Your task to perform on an android device: Go to Wikipedia Image 0: 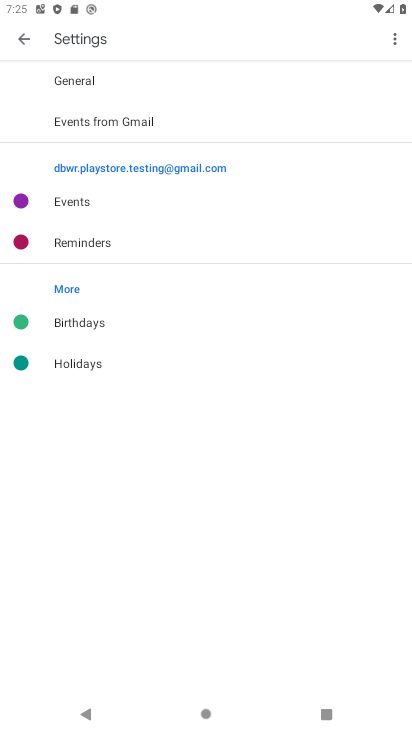
Step 0: press back button
Your task to perform on an android device: Go to Wikipedia Image 1: 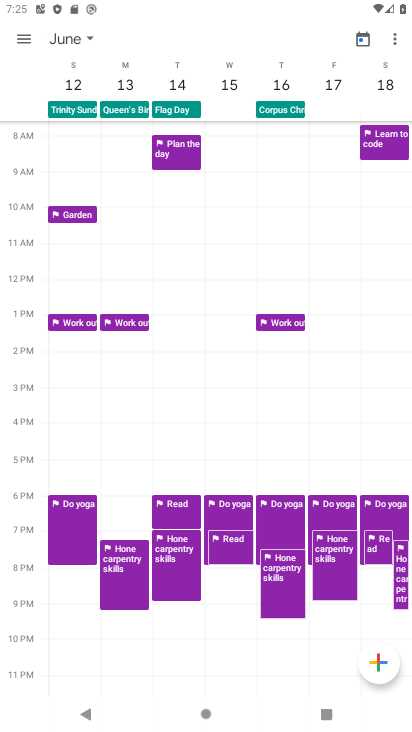
Step 1: press home button
Your task to perform on an android device: Go to Wikipedia Image 2: 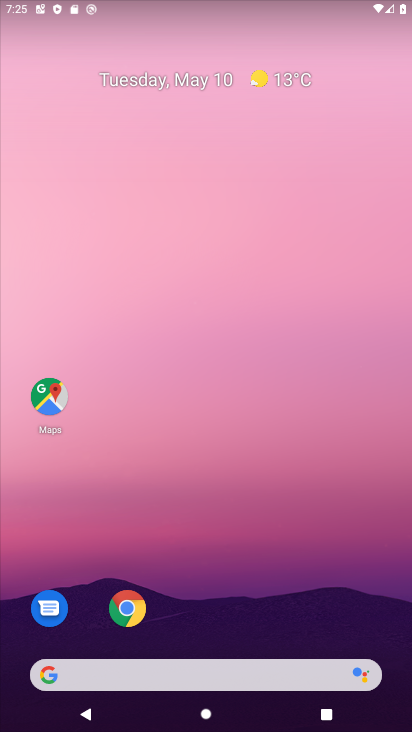
Step 2: click (119, 626)
Your task to perform on an android device: Go to Wikipedia Image 3: 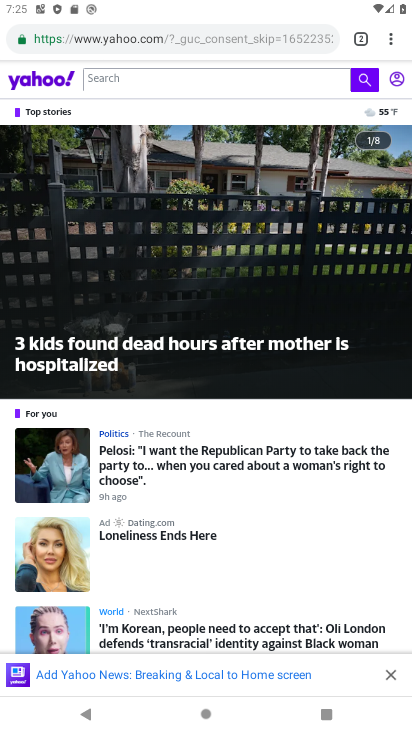
Step 3: click (361, 35)
Your task to perform on an android device: Go to Wikipedia Image 4: 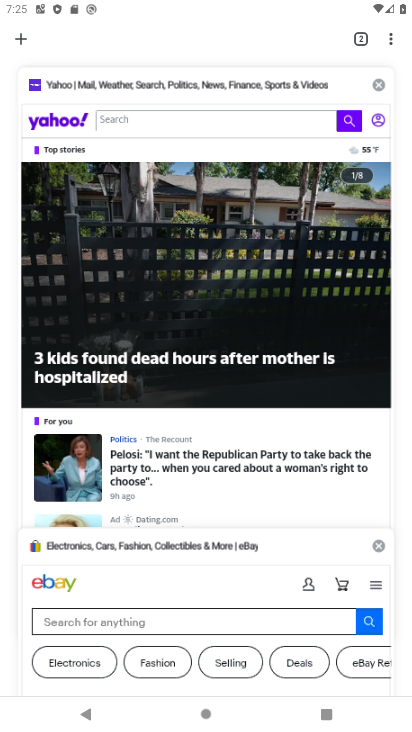
Step 4: click (377, 554)
Your task to perform on an android device: Go to Wikipedia Image 5: 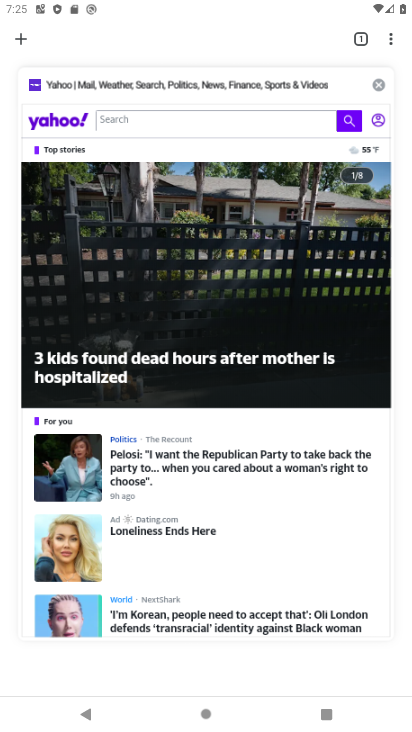
Step 5: click (379, 83)
Your task to perform on an android device: Go to Wikipedia Image 6: 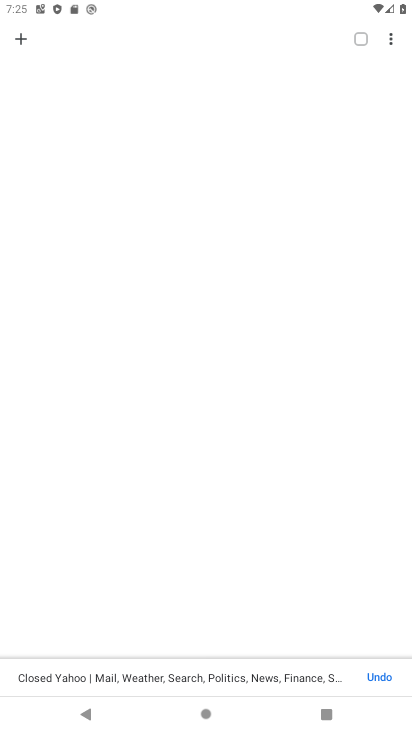
Step 6: click (19, 38)
Your task to perform on an android device: Go to Wikipedia Image 7: 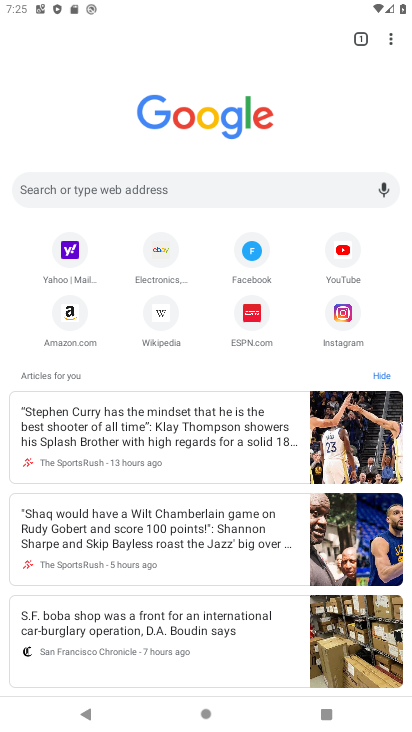
Step 7: click (155, 331)
Your task to perform on an android device: Go to Wikipedia Image 8: 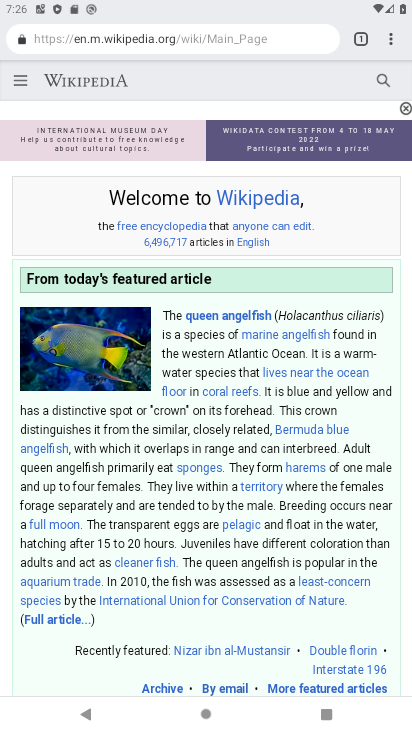
Step 8: task complete